Your task to perform on an android device: Open settings on Google Maps Image 0: 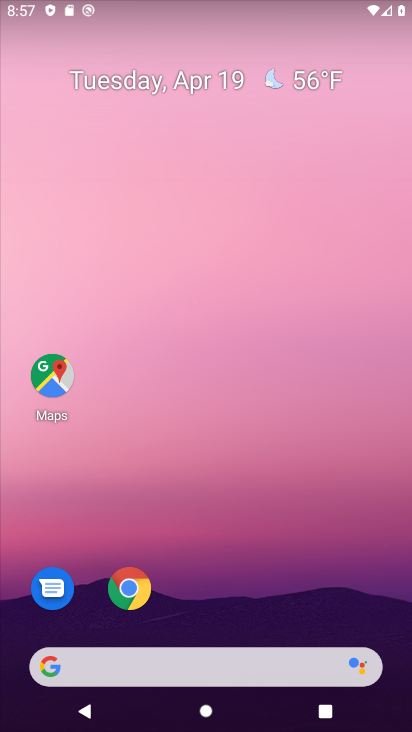
Step 0: click (52, 382)
Your task to perform on an android device: Open settings on Google Maps Image 1: 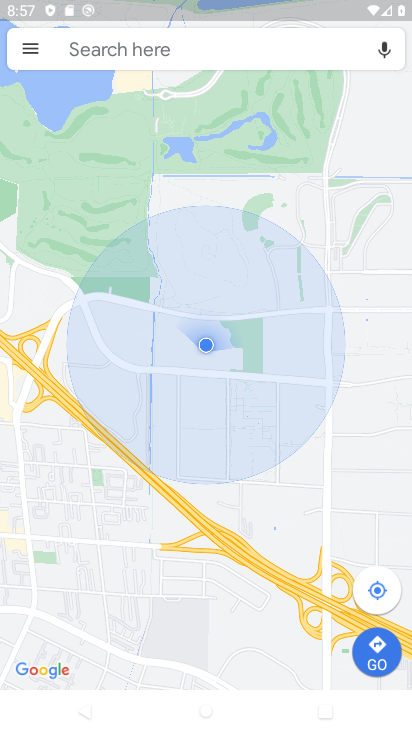
Step 1: click (29, 51)
Your task to perform on an android device: Open settings on Google Maps Image 2: 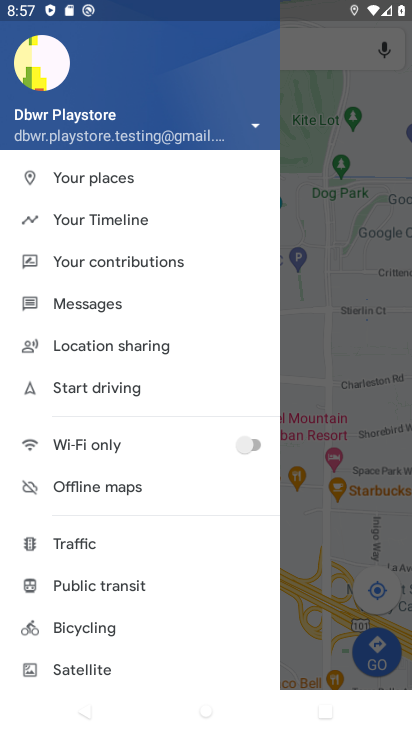
Step 2: drag from (138, 611) to (172, 478)
Your task to perform on an android device: Open settings on Google Maps Image 3: 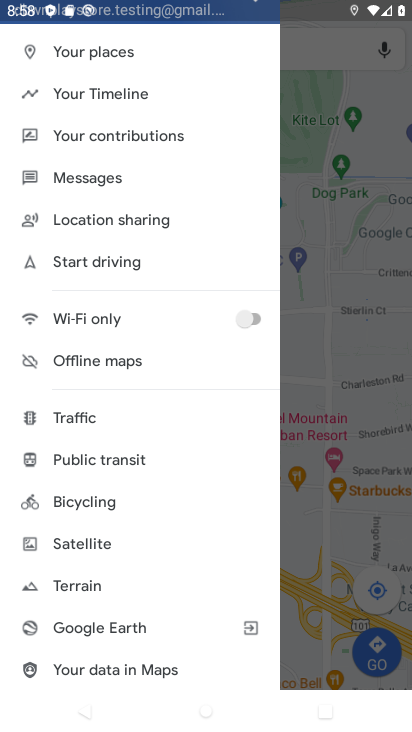
Step 3: drag from (134, 565) to (148, 471)
Your task to perform on an android device: Open settings on Google Maps Image 4: 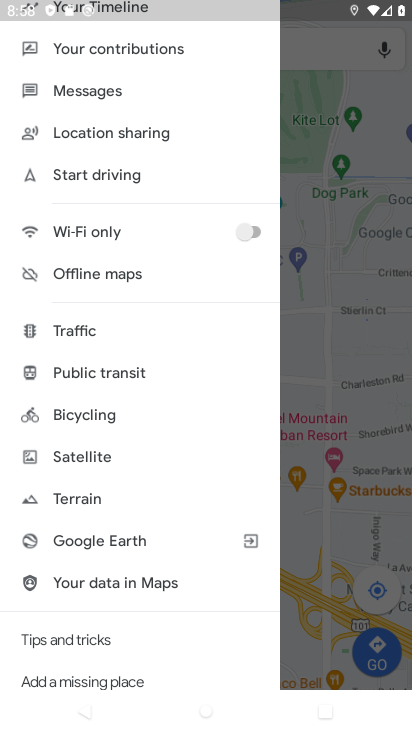
Step 4: drag from (139, 625) to (156, 515)
Your task to perform on an android device: Open settings on Google Maps Image 5: 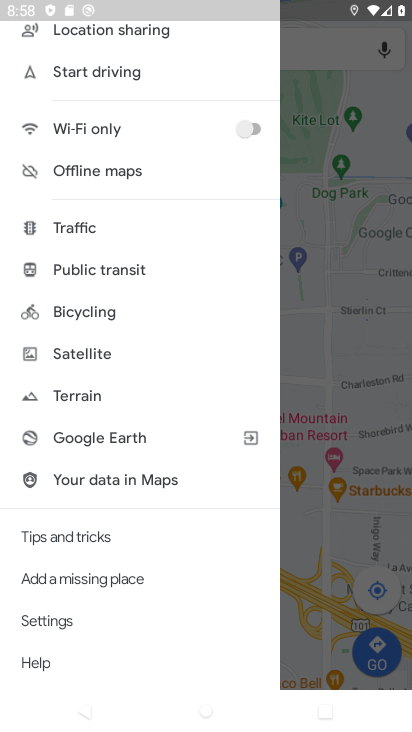
Step 5: click (60, 625)
Your task to perform on an android device: Open settings on Google Maps Image 6: 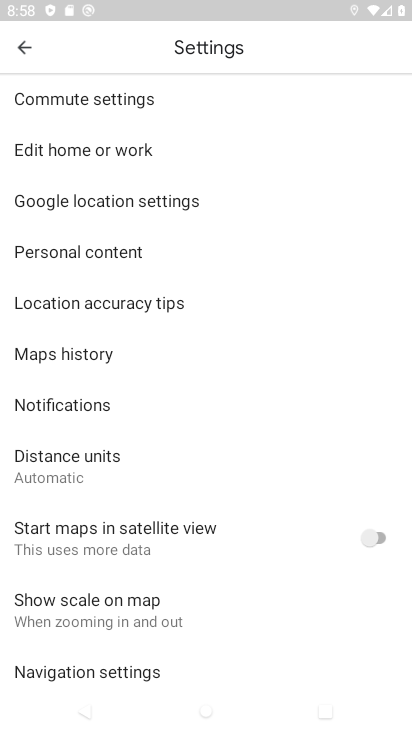
Step 6: task complete